Your task to perform on an android device: Open Google Chrome Image 0: 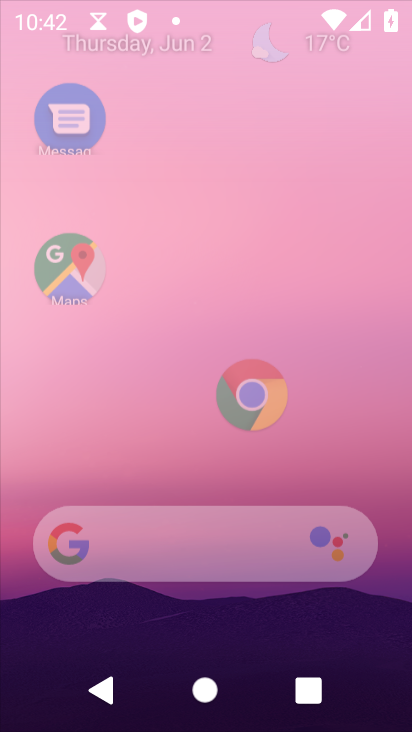
Step 0: press home button
Your task to perform on an android device: Open Google Chrome Image 1: 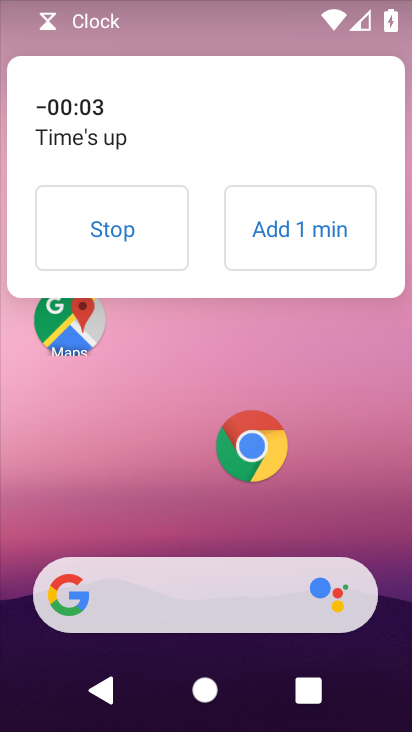
Step 1: click (102, 234)
Your task to perform on an android device: Open Google Chrome Image 2: 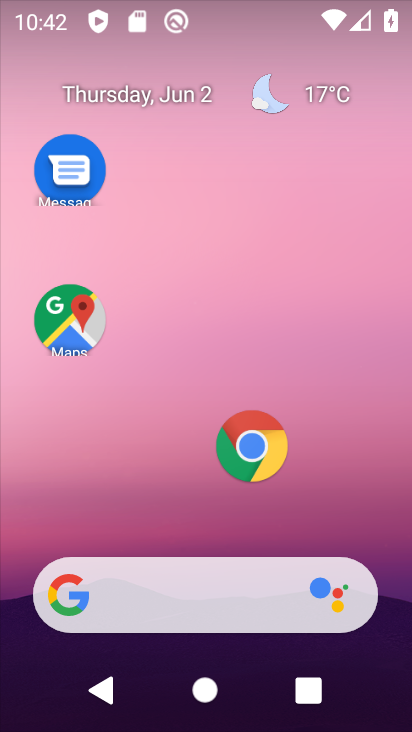
Step 2: click (260, 440)
Your task to perform on an android device: Open Google Chrome Image 3: 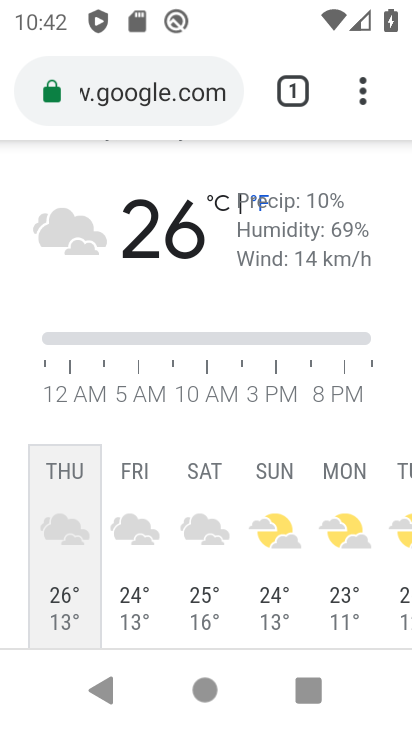
Step 3: task complete